Your task to perform on an android device: open app "Airtel Thanks" (install if not already installed) Image 0: 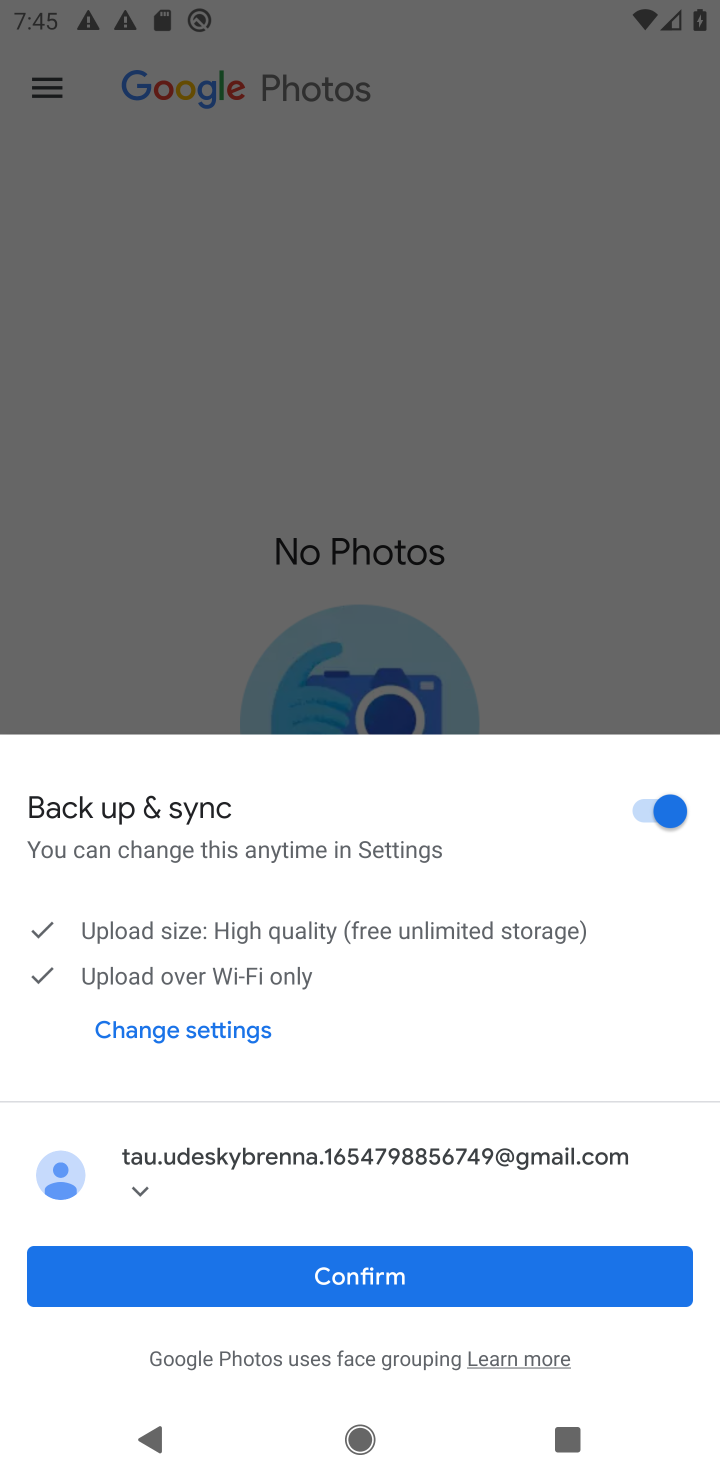
Step 0: press home button
Your task to perform on an android device: open app "Airtel Thanks" (install if not already installed) Image 1: 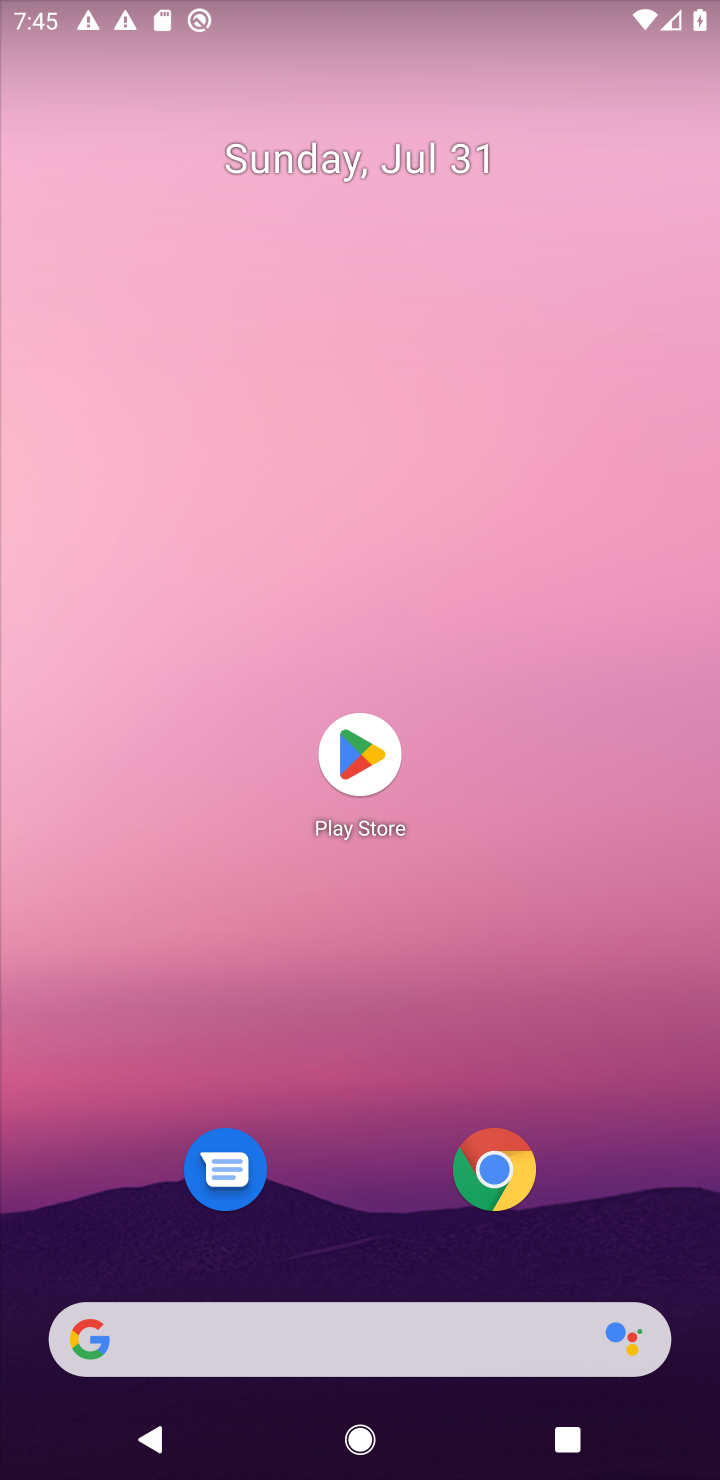
Step 1: click (356, 769)
Your task to perform on an android device: open app "Airtel Thanks" (install if not already installed) Image 2: 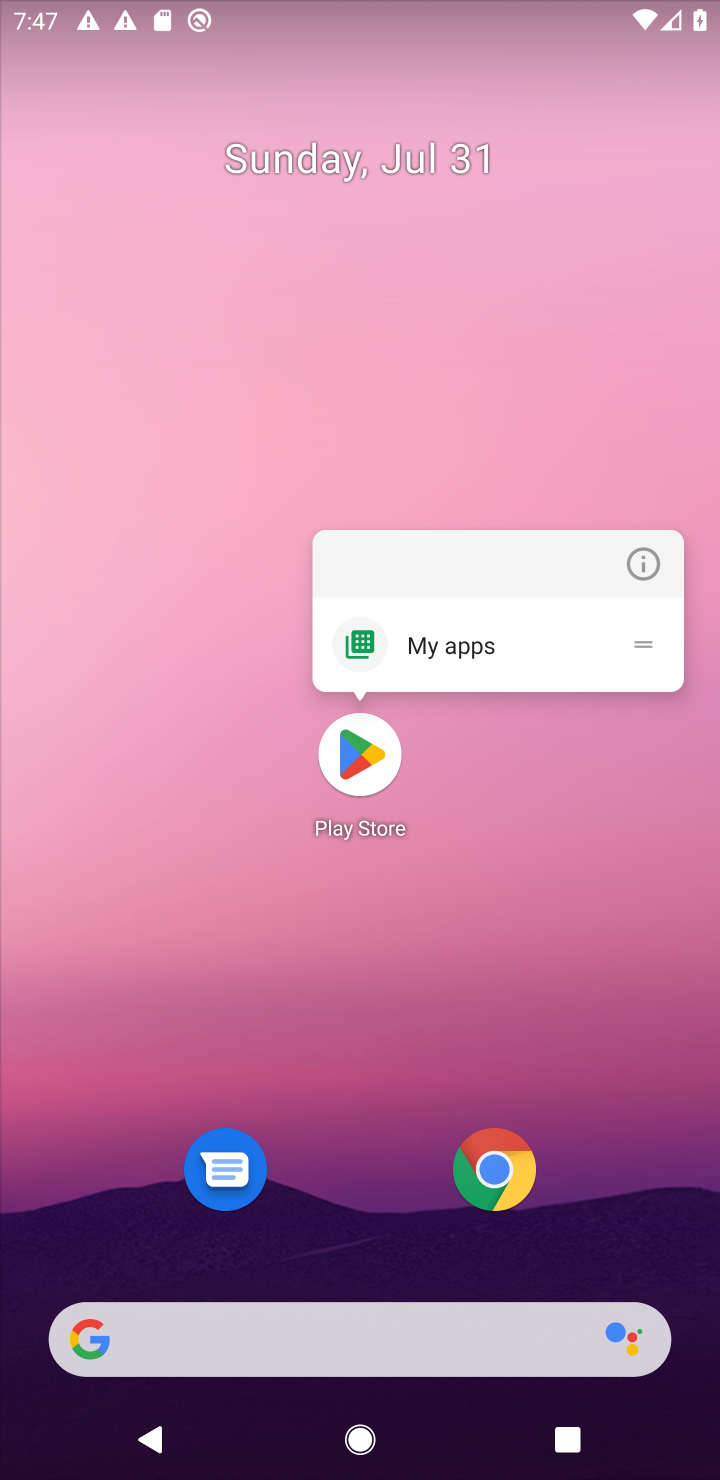
Step 2: click (359, 751)
Your task to perform on an android device: open app "Airtel Thanks" (install if not already installed) Image 3: 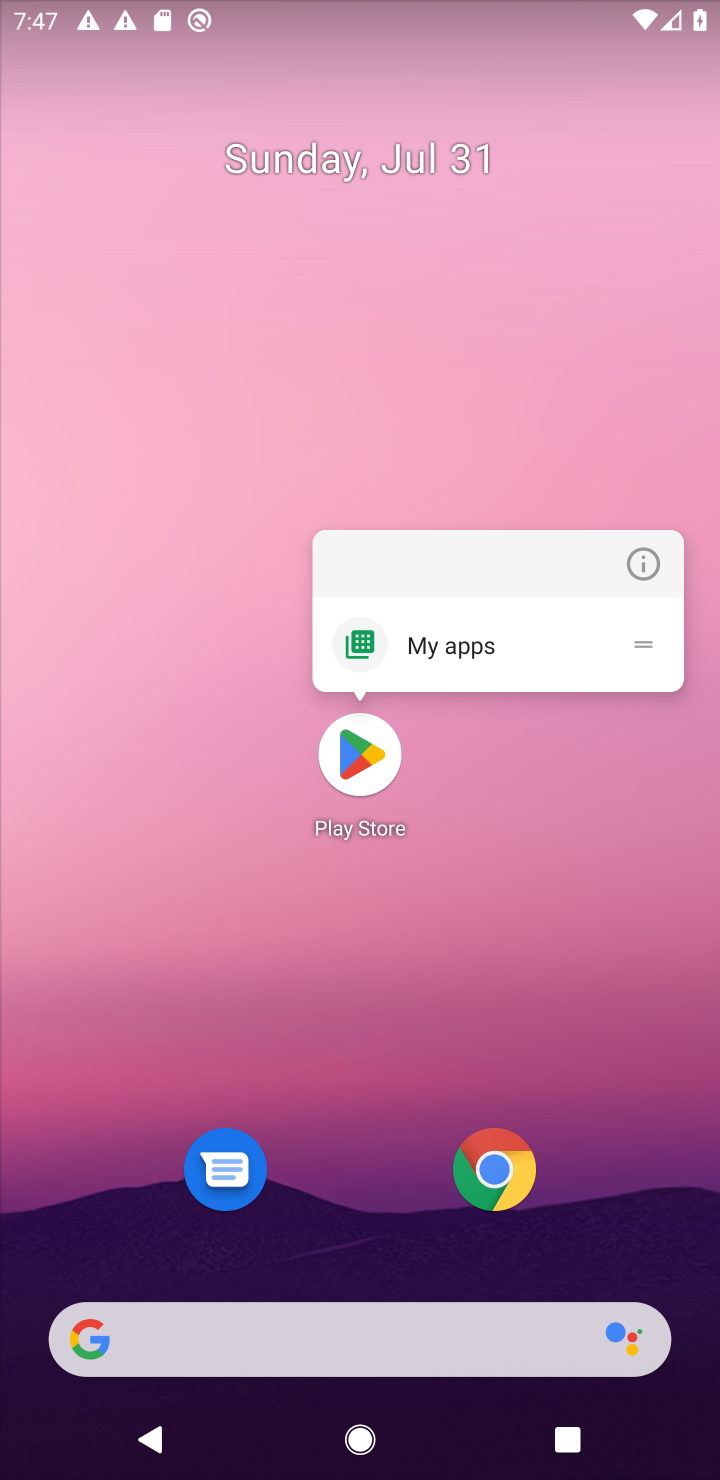
Step 3: click (350, 757)
Your task to perform on an android device: open app "Airtel Thanks" (install if not already installed) Image 4: 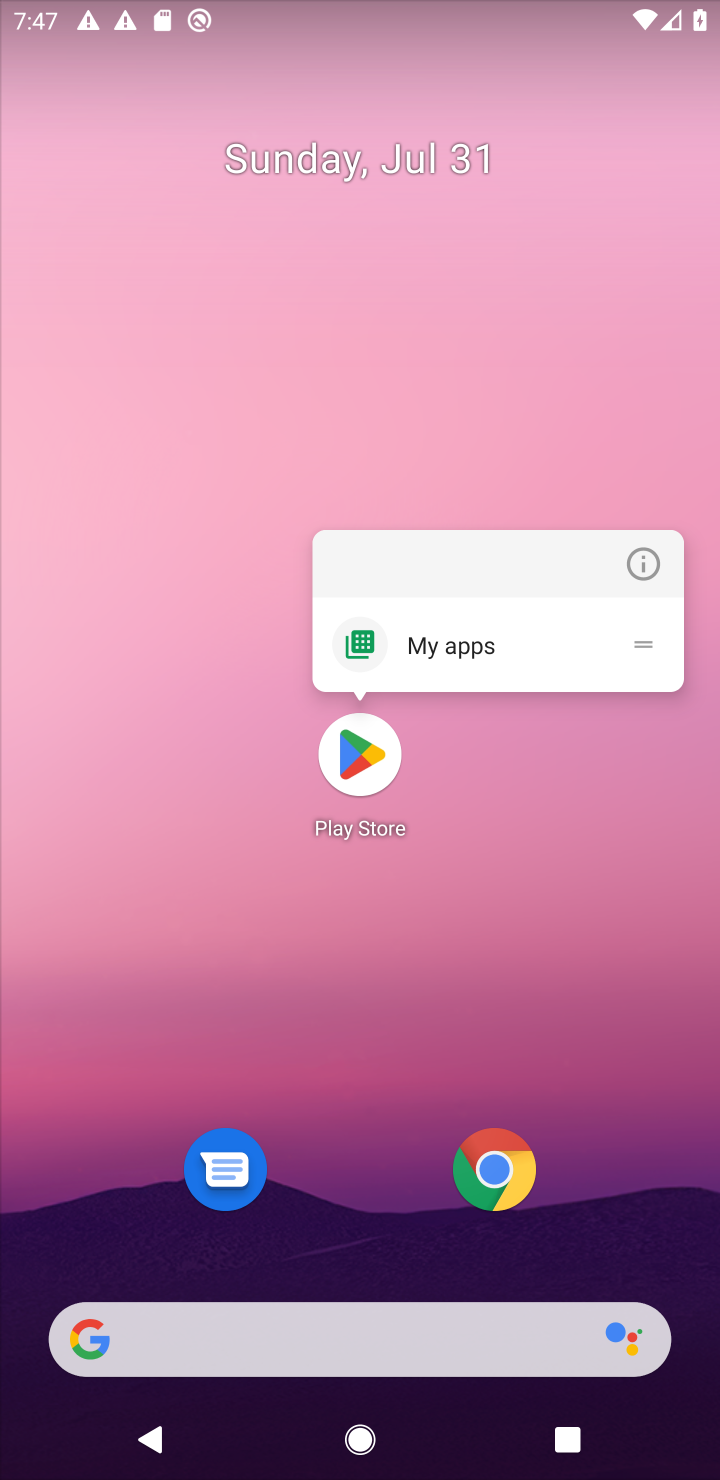
Step 4: click (353, 769)
Your task to perform on an android device: open app "Airtel Thanks" (install if not already installed) Image 5: 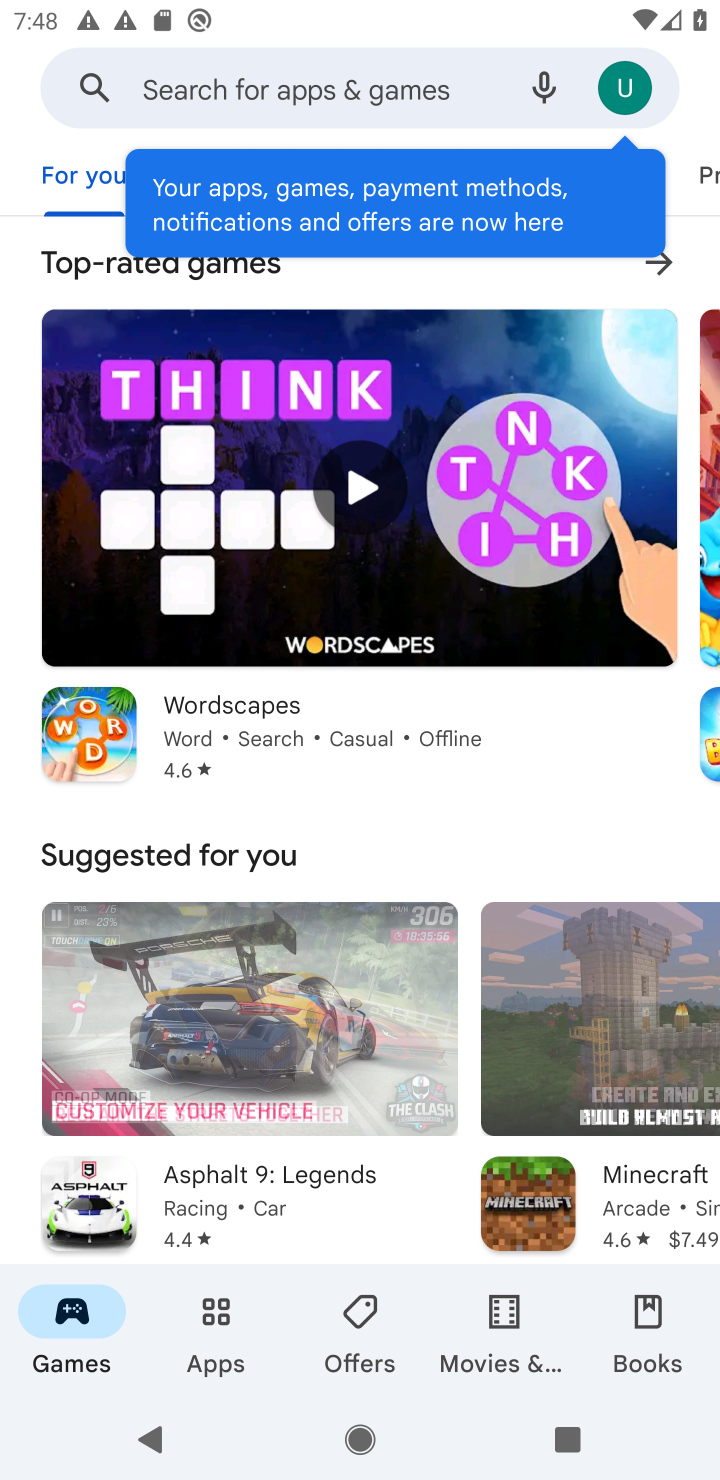
Step 5: click (429, 84)
Your task to perform on an android device: open app "Airtel Thanks" (install if not already installed) Image 6: 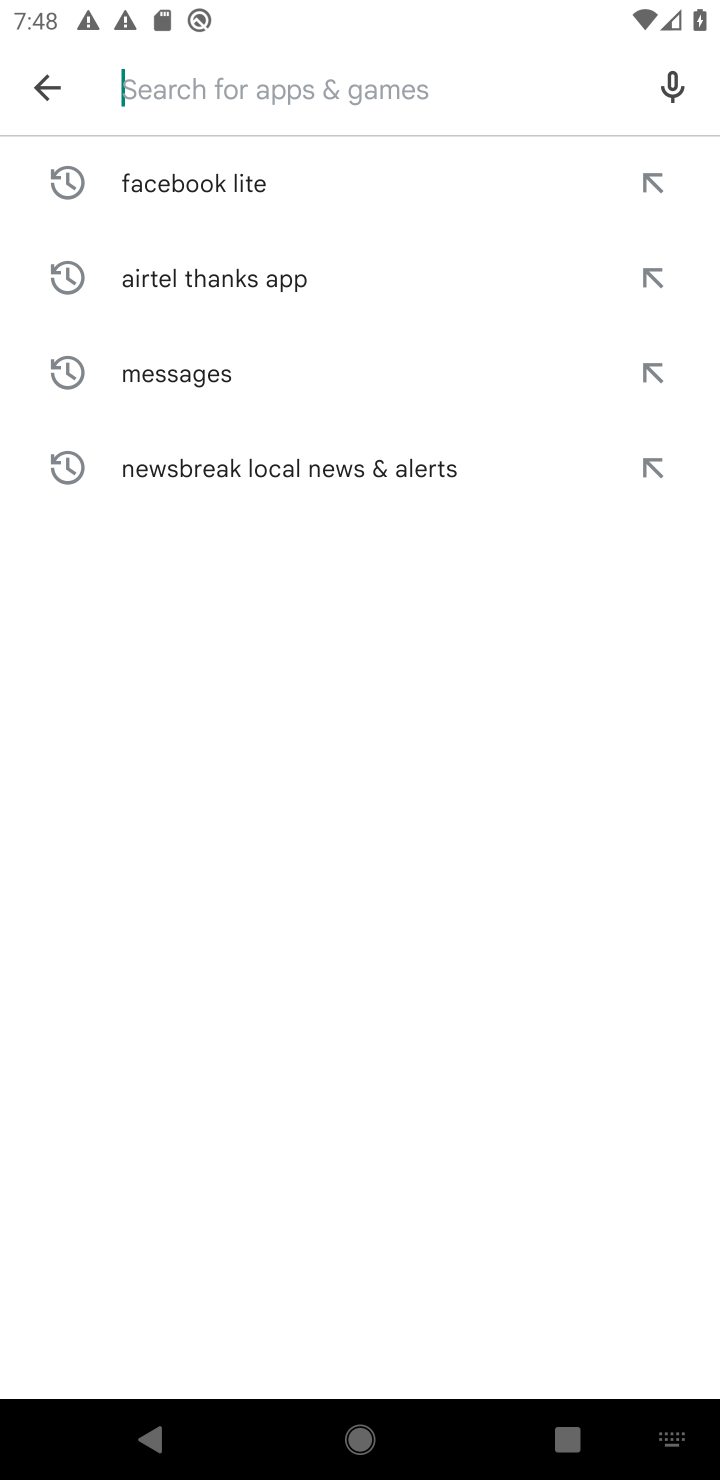
Step 6: type "Airtel Thanks"
Your task to perform on an android device: open app "Airtel Thanks" (install if not already installed) Image 7: 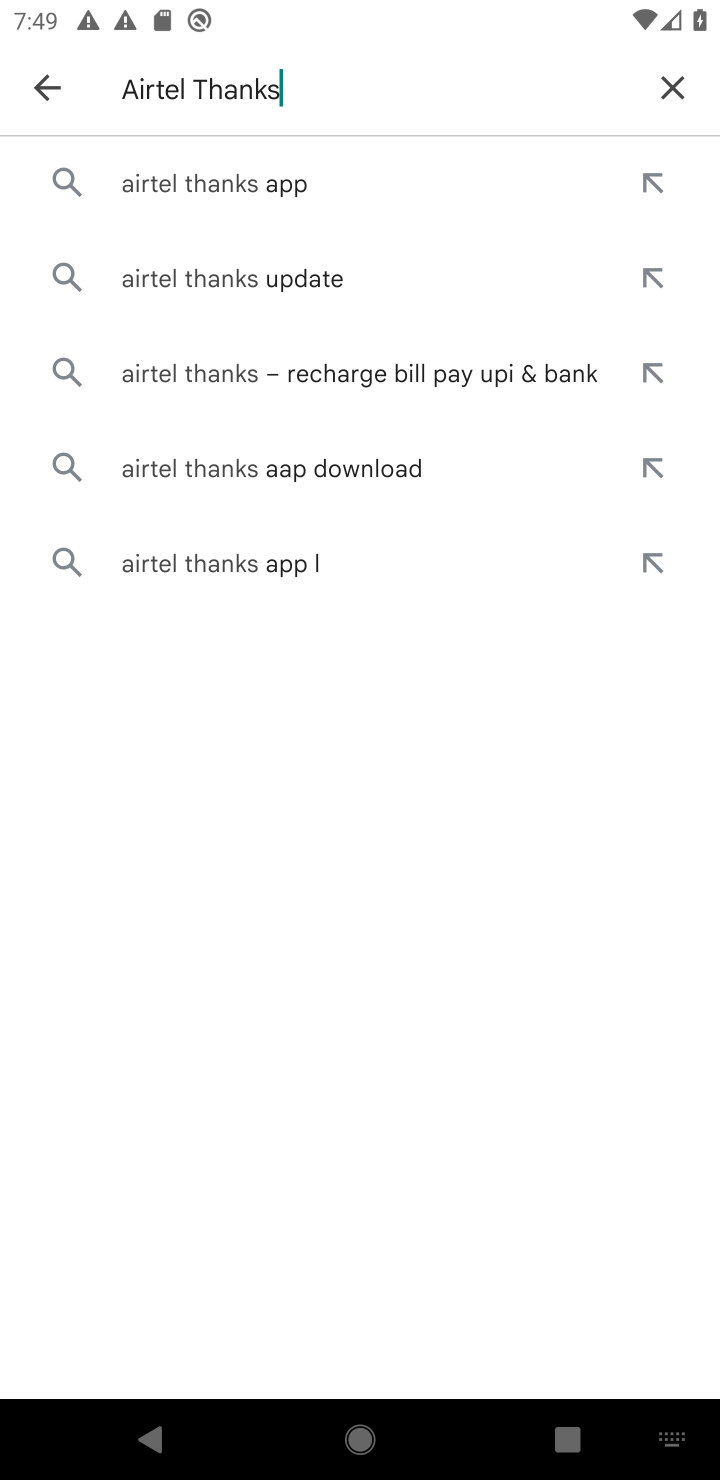
Step 7: click (264, 176)
Your task to perform on an android device: open app "Airtel Thanks" (install if not already installed) Image 8: 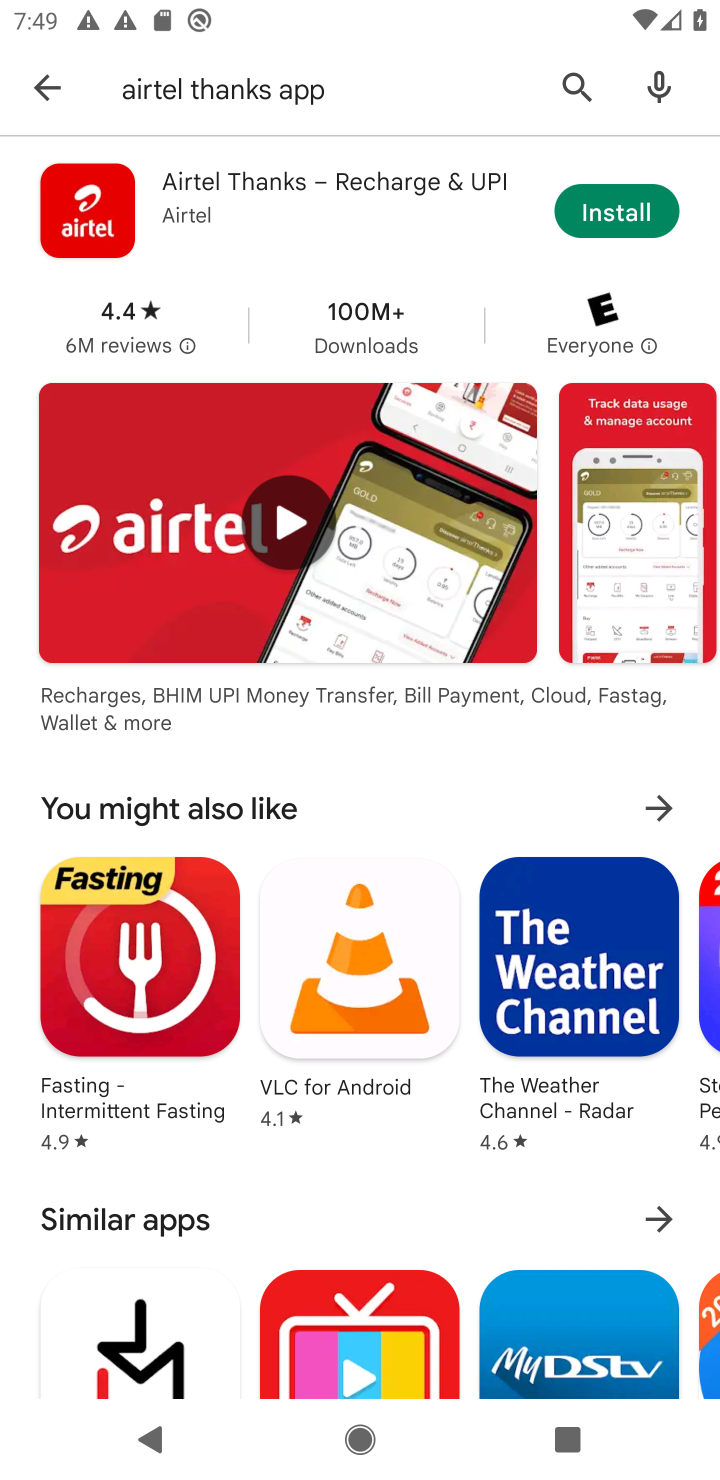
Step 8: click (636, 208)
Your task to perform on an android device: open app "Airtel Thanks" (install if not already installed) Image 9: 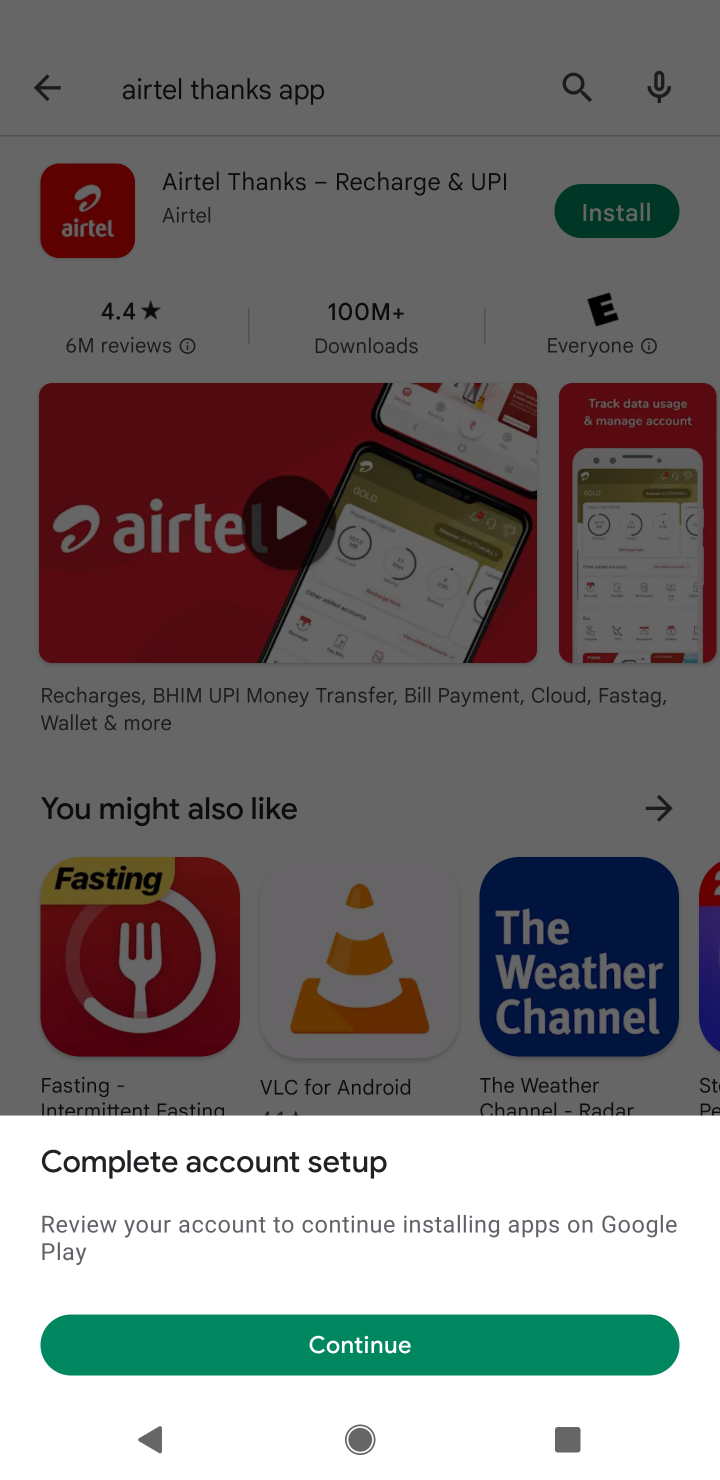
Step 9: click (384, 1340)
Your task to perform on an android device: open app "Airtel Thanks" (install if not already installed) Image 10: 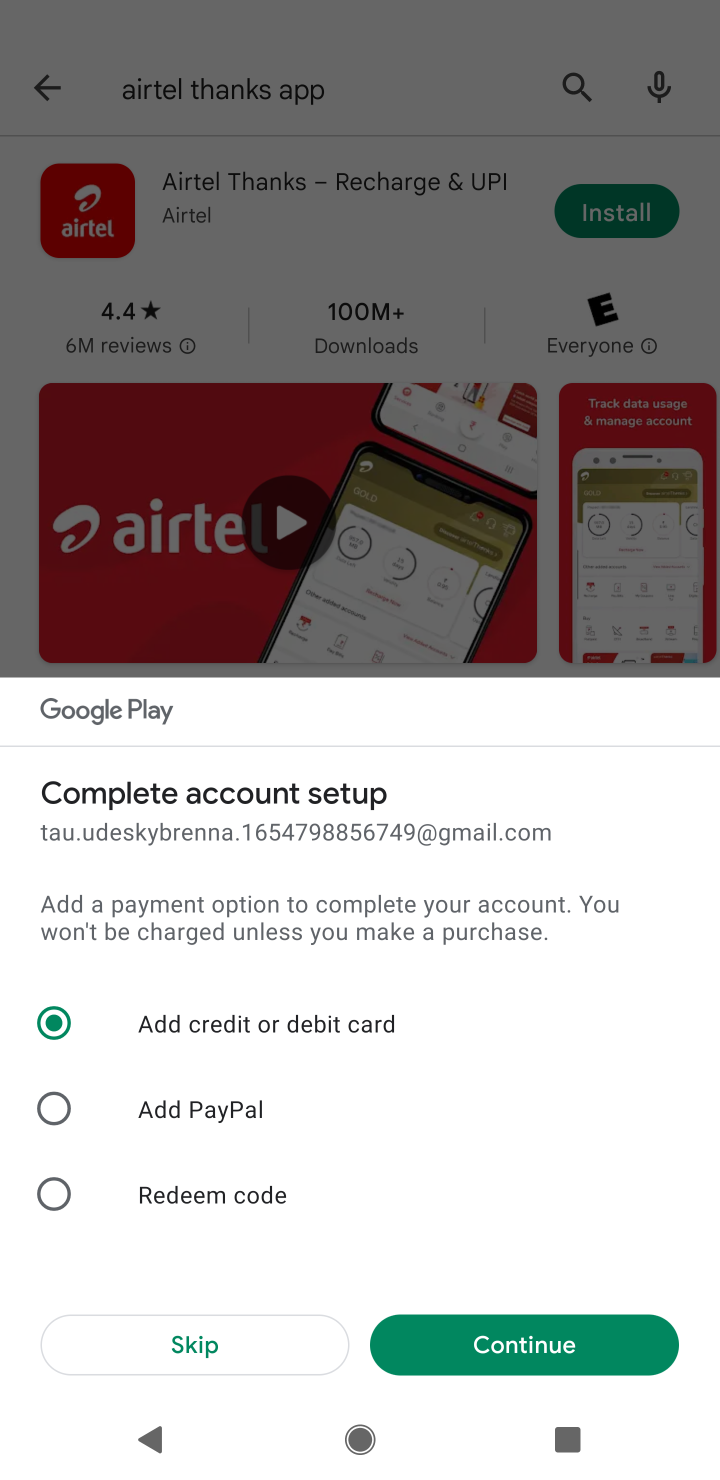
Step 10: click (192, 1345)
Your task to perform on an android device: open app "Airtel Thanks" (install if not already installed) Image 11: 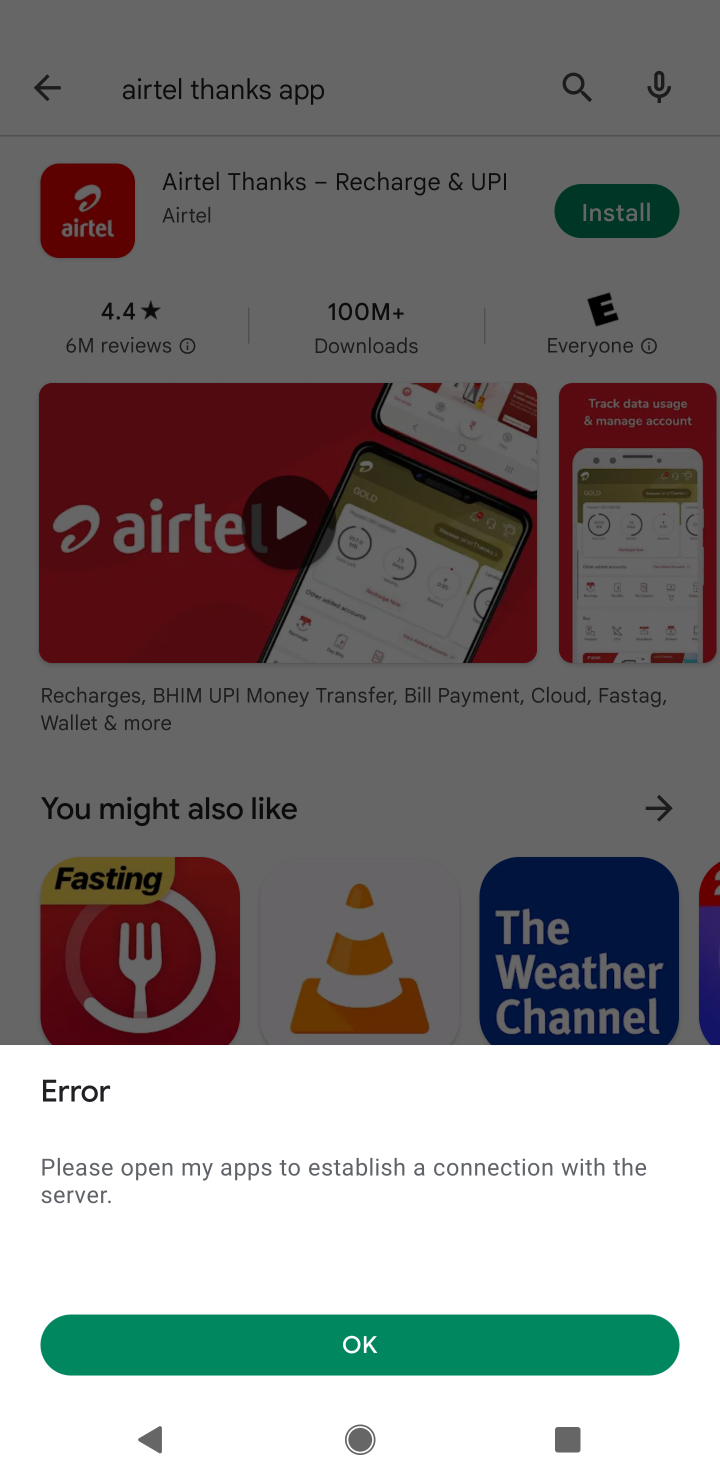
Step 11: click (378, 1340)
Your task to perform on an android device: open app "Airtel Thanks" (install if not already installed) Image 12: 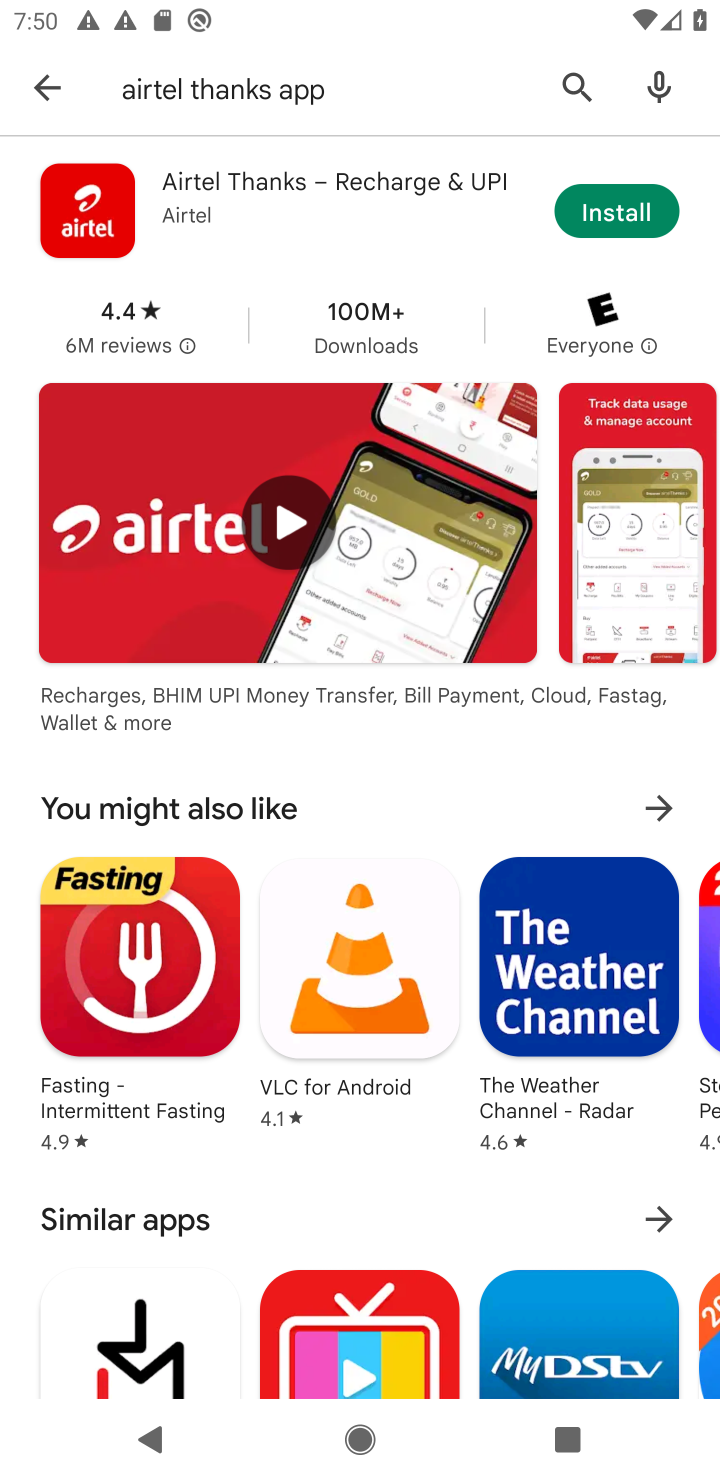
Step 12: click (607, 207)
Your task to perform on an android device: open app "Airtel Thanks" (install if not already installed) Image 13: 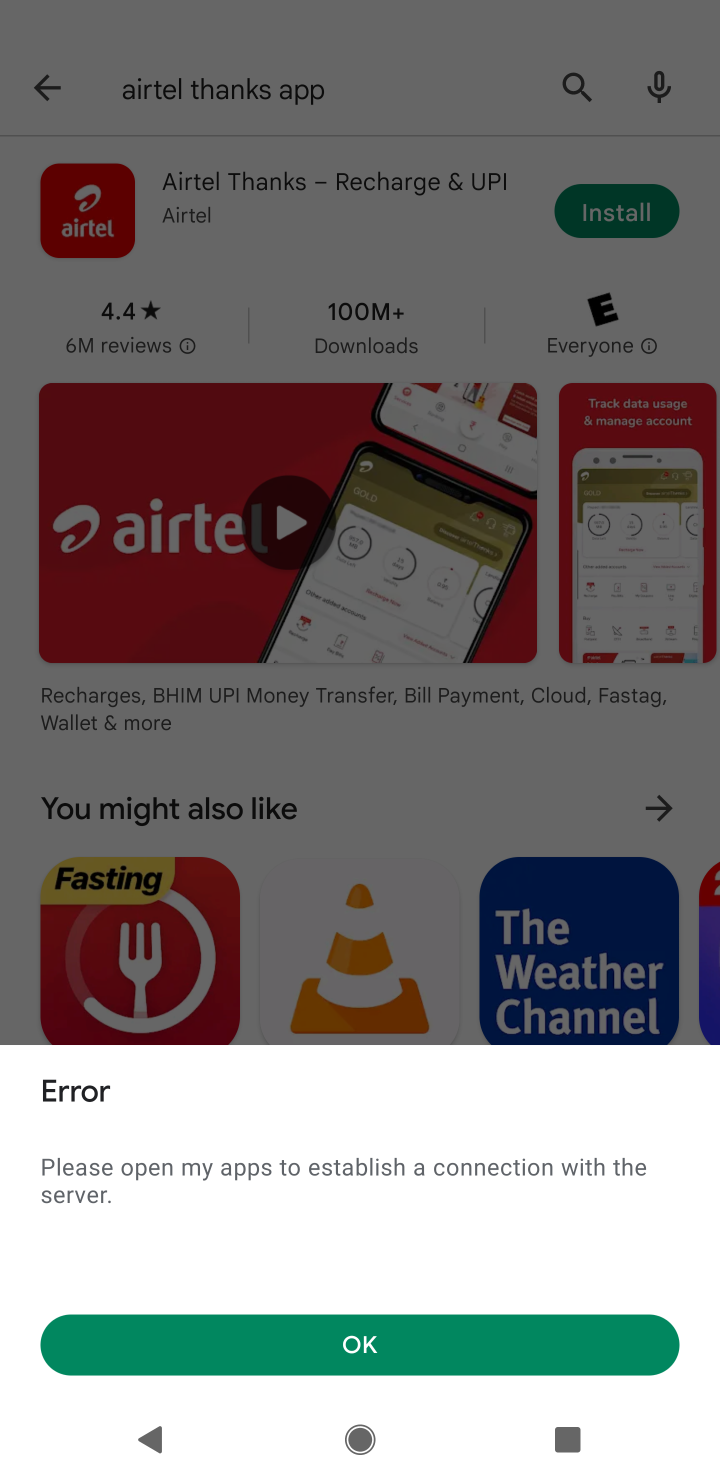
Step 13: click (353, 1343)
Your task to perform on an android device: open app "Airtel Thanks" (install if not already installed) Image 14: 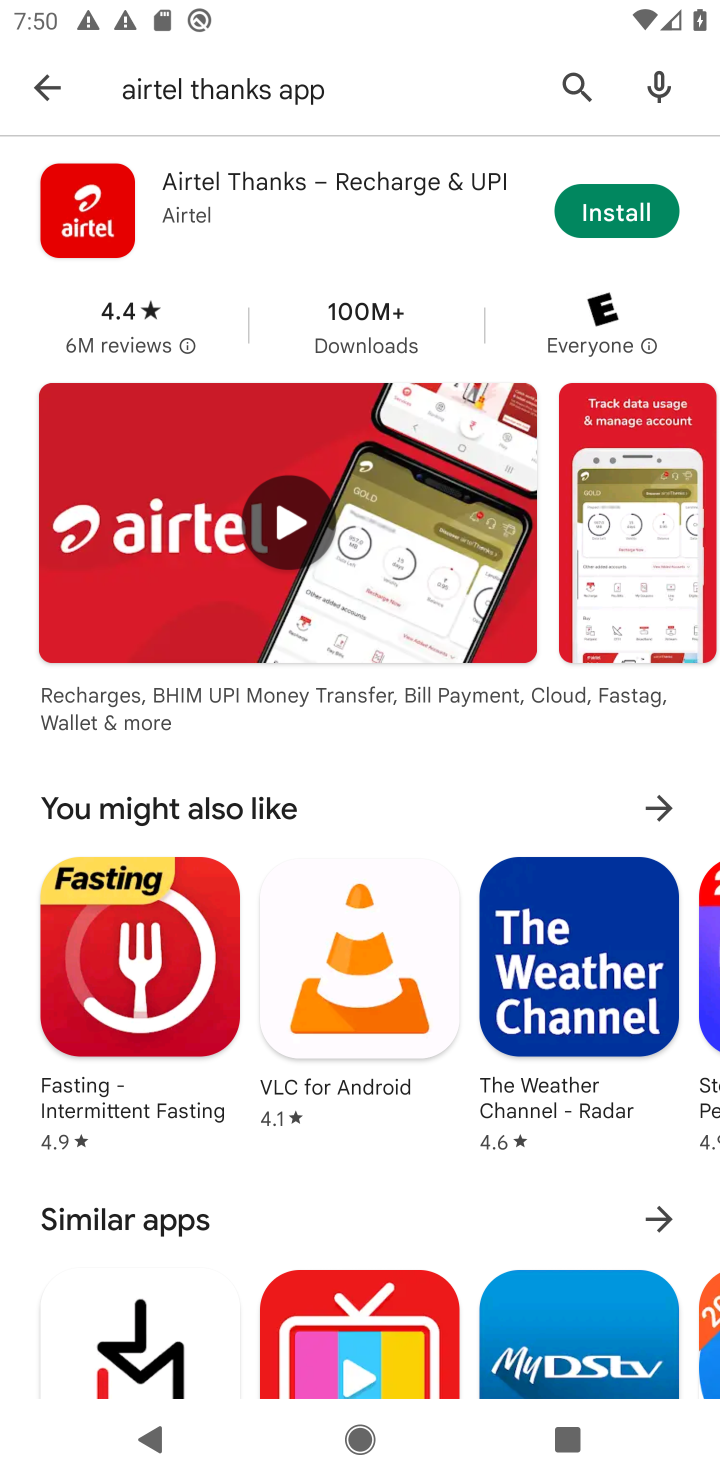
Step 14: click (646, 213)
Your task to perform on an android device: open app "Airtel Thanks" (install if not already installed) Image 15: 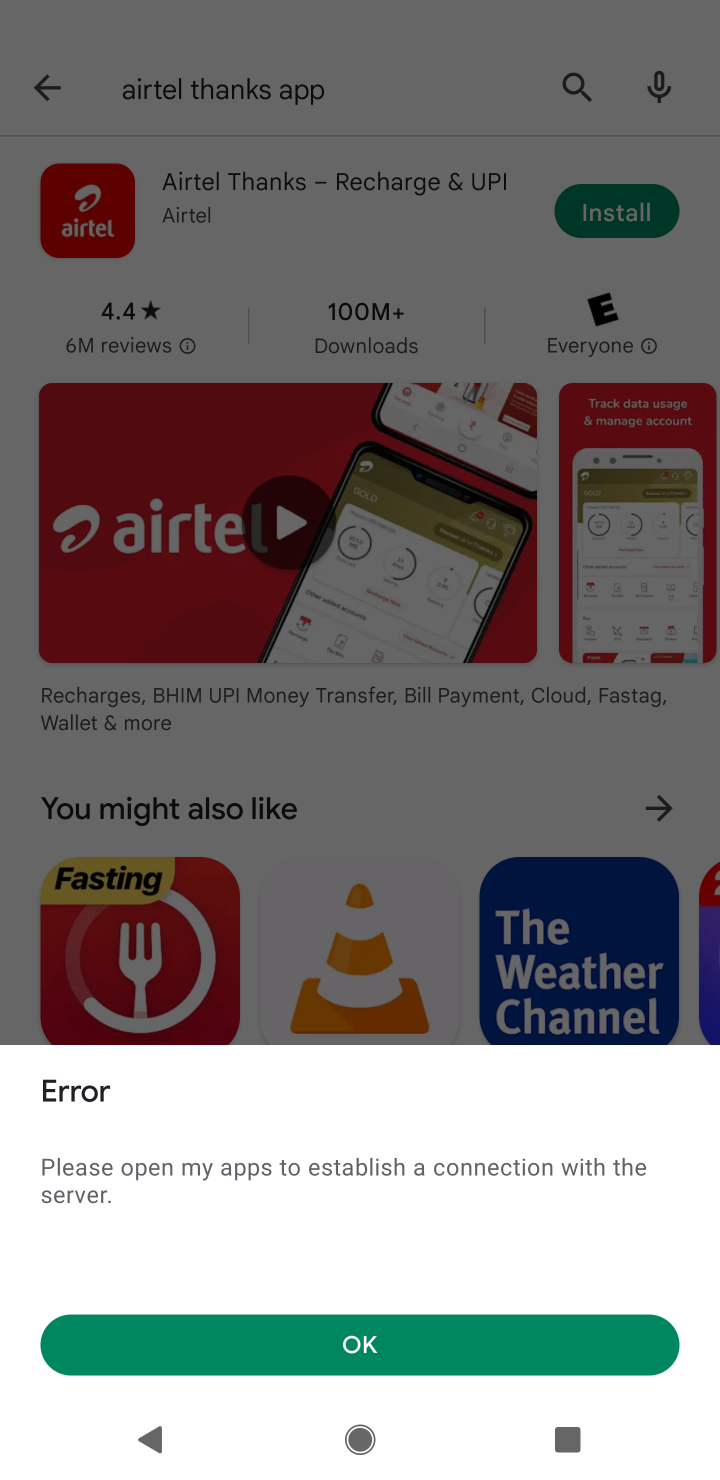
Step 15: click (358, 1345)
Your task to perform on an android device: open app "Airtel Thanks" (install if not already installed) Image 16: 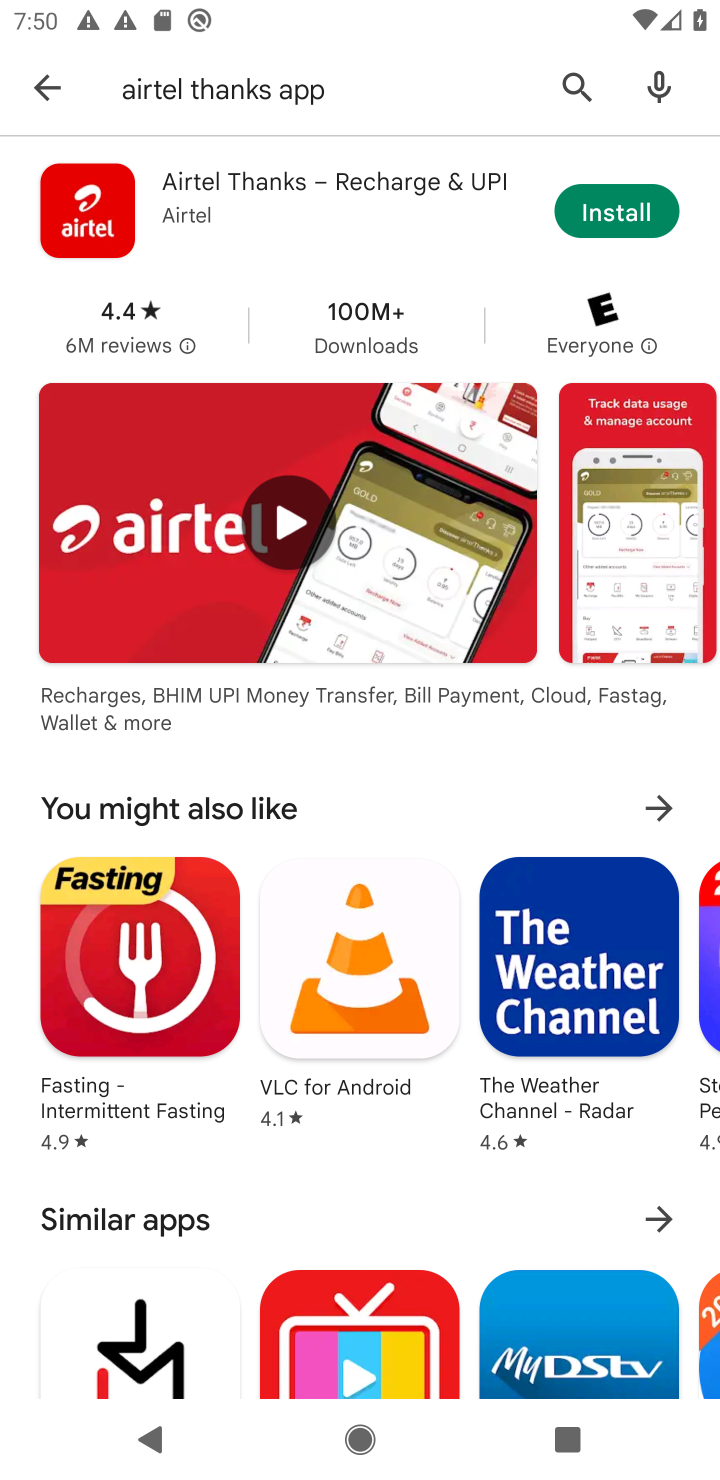
Step 16: click (610, 217)
Your task to perform on an android device: open app "Airtel Thanks" (install if not already installed) Image 17: 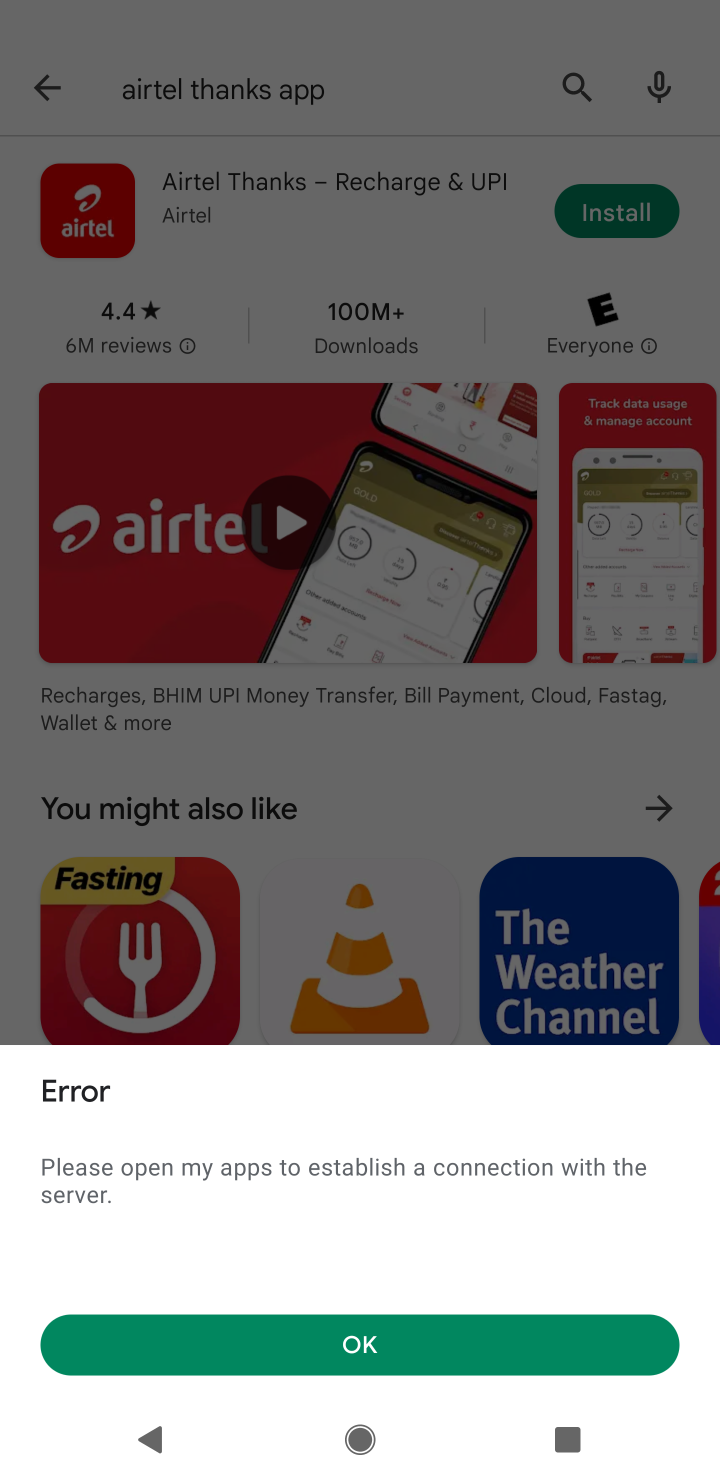
Step 17: click (406, 1360)
Your task to perform on an android device: open app "Airtel Thanks" (install if not already installed) Image 18: 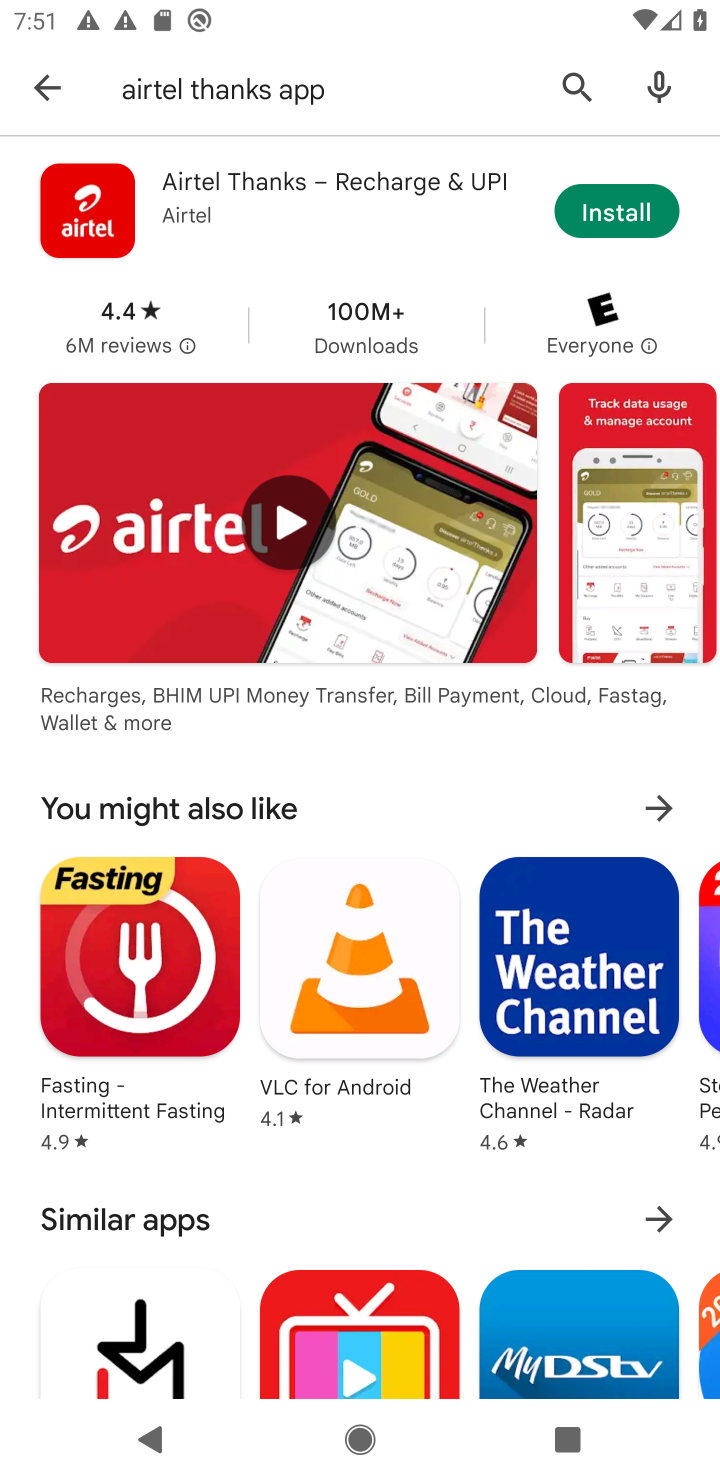
Step 18: task complete